Your task to perform on an android device: snooze an email in the gmail app Image 0: 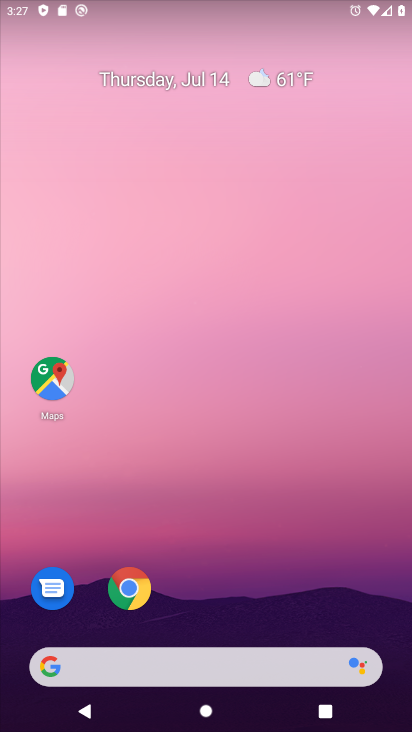
Step 0: press home button
Your task to perform on an android device: snooze an email in the gmail app Image 1: 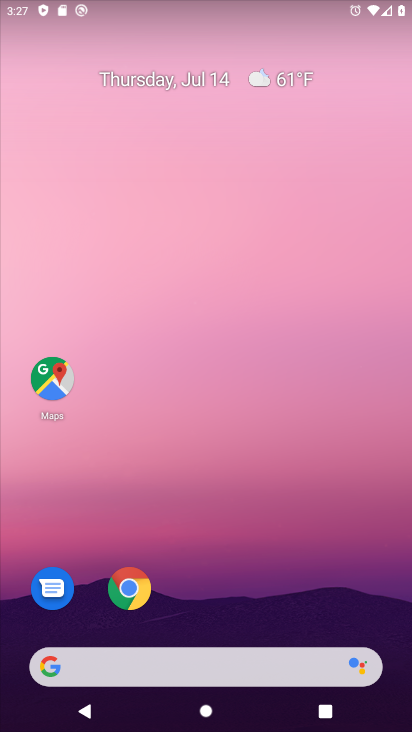
Step 1: drag from (250, 435) to (199, 7)
Your task to perform on an android device: snooze an email in the gmail app Image 2: 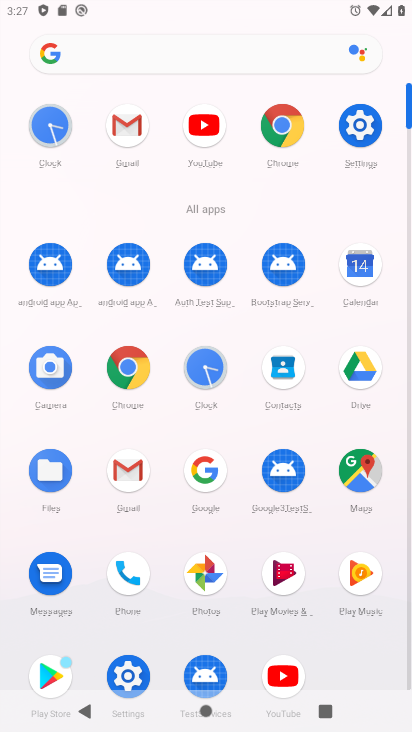
Step 2: click (118, 118)
Your task to perform on an android device: snooze an email in the gmail app Image 3: 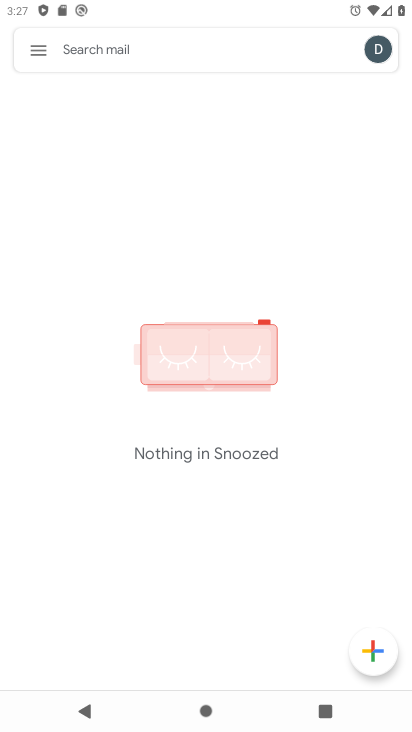
Step 3: click (33, 48)
Your task to perform on an android device: snooze an email in the gmail app Image 4: 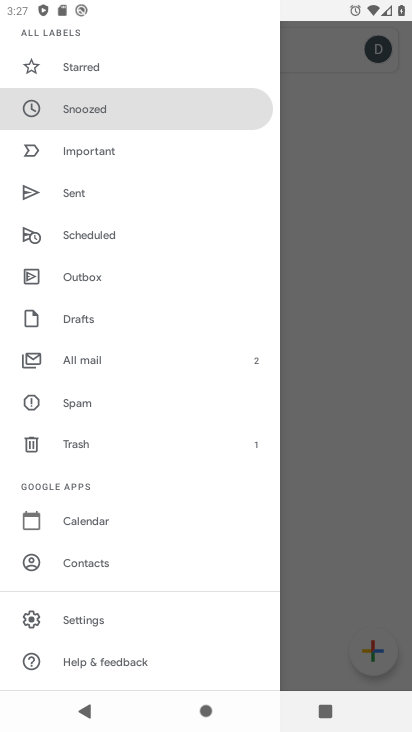
Step 4: click (100, 359)
Your task to perform on an android device: snooze an email in the gmail app Image 5: 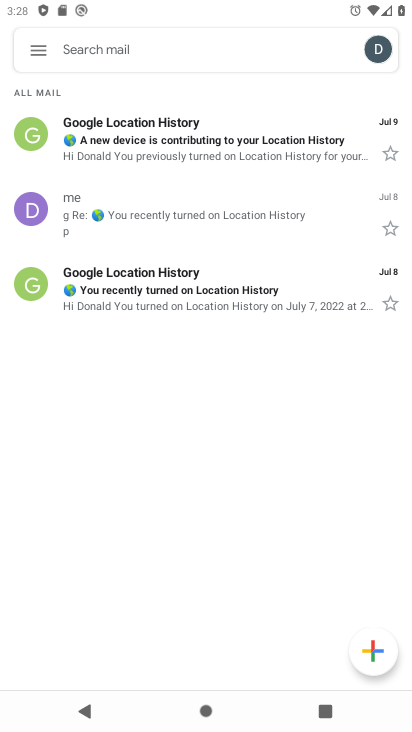
Step 5: click (189, 135)
Your task to perform on an android device: snooze an email in the gmail app Image 6: 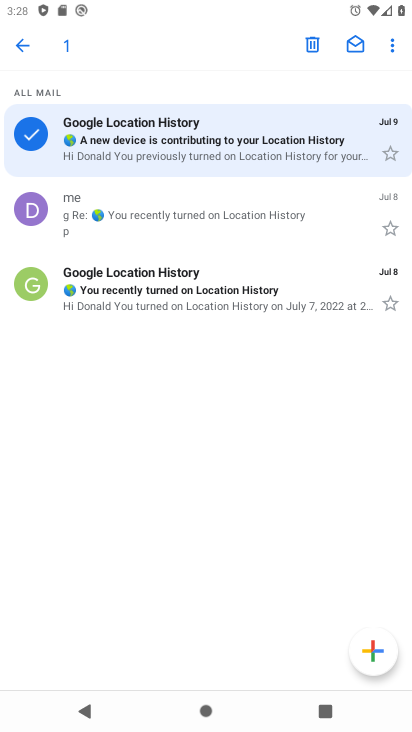
Step 6: click (390, 51)
Your task to perform on an android device: snooze an email in the gmail app Image 7: 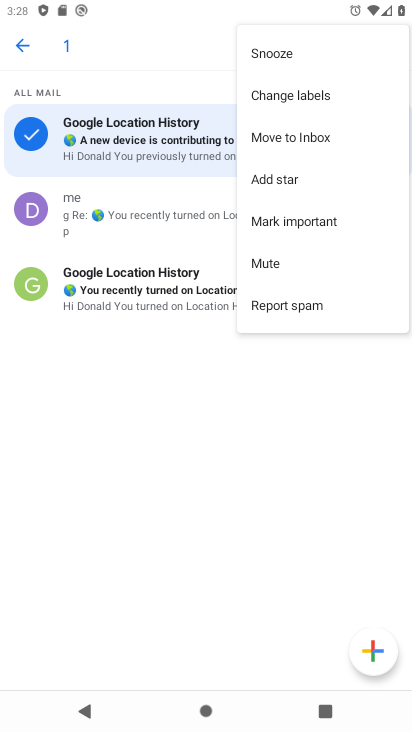
Step 7: click (304, 51)
Your task to perform on an android device: snooze an email in the gmail app Image 8: 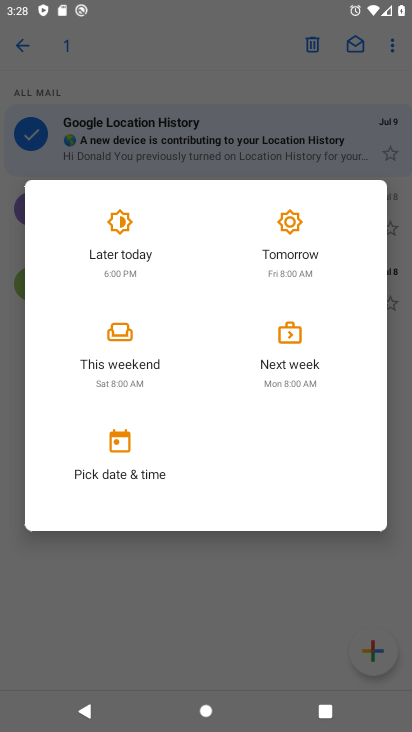
Step 8: click (127, 356)
Your task to perform on an android device: snooze an email in the gmail app Image 9: 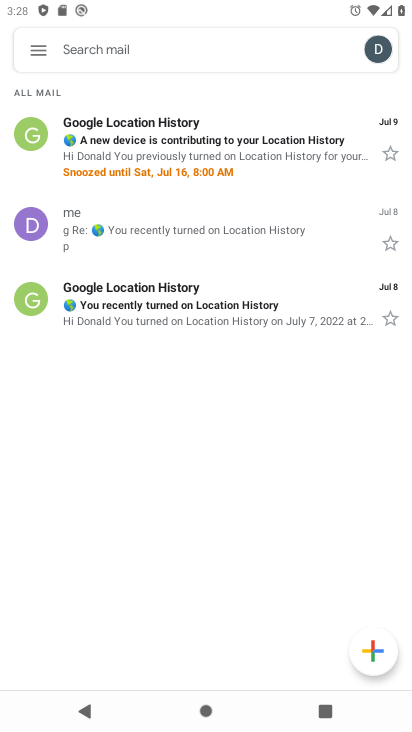
Step 9: task complete